Your task to perform on an android device: Go to privacy settings Image 0: 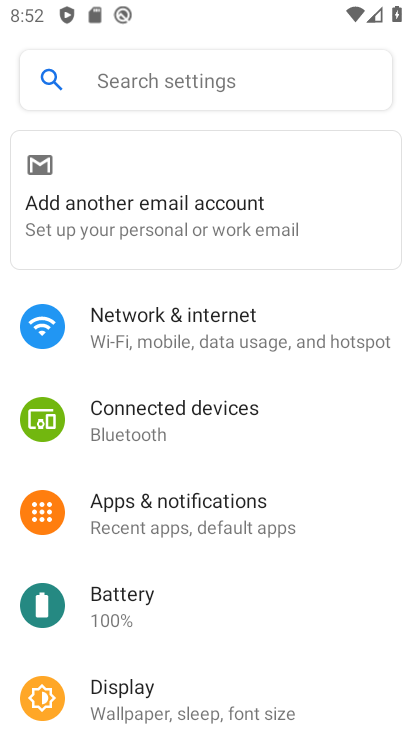
Step 0: drag from (260, 643) to (227, 218)
Your task to perform on an android device: Go to privacy settings Image 1: 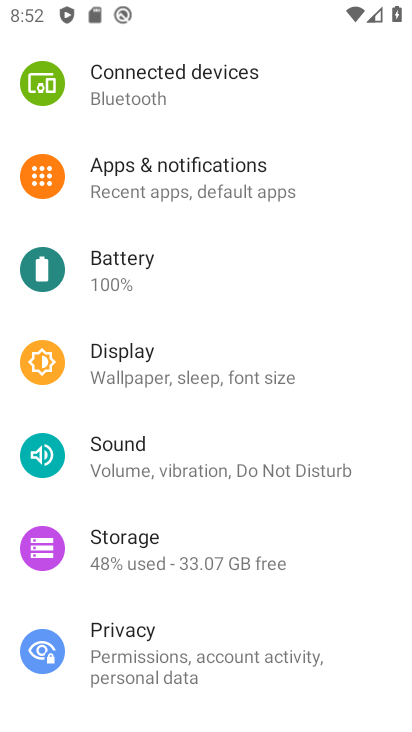
Step 1: click (250, 652)
Your task to perform on an android device: Go to privacy settings Image 2: 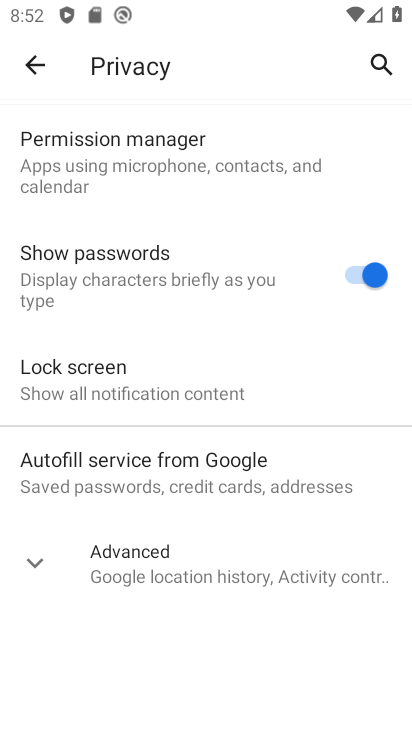
Step 2: task complete